Your task to perform on an android device: set the timer Image 0: 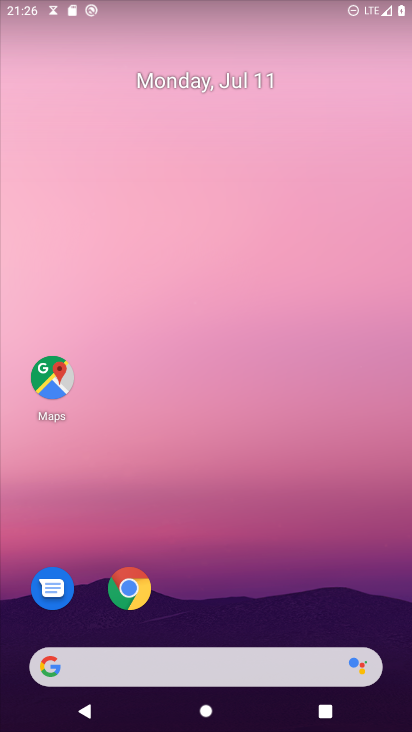
Step 0: press home button
Your task to perform on an android device: set the timer Image 1: 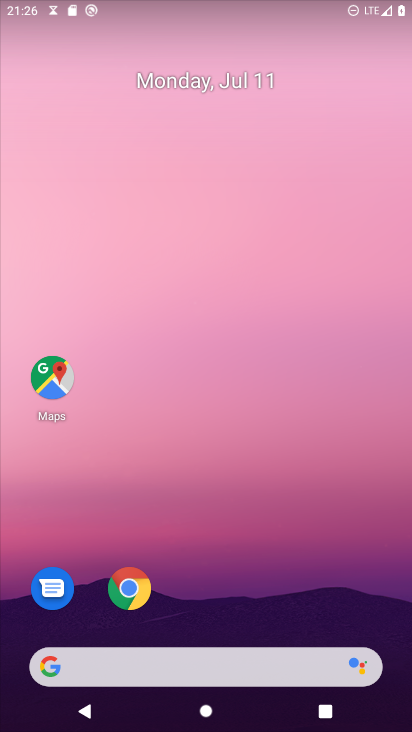
Step 1: drag from (238, 627) to (197, 29)
Your task to perform on an android device: set the timer Image 2: 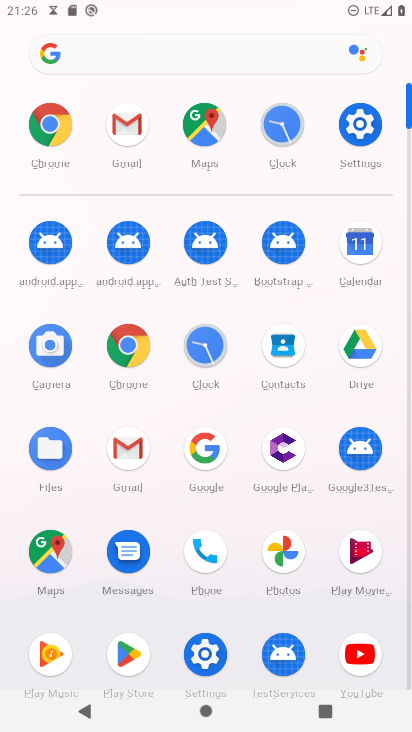
Step 2: click (282, 135)
Your task to perform on an android device: set the timer Image 3: 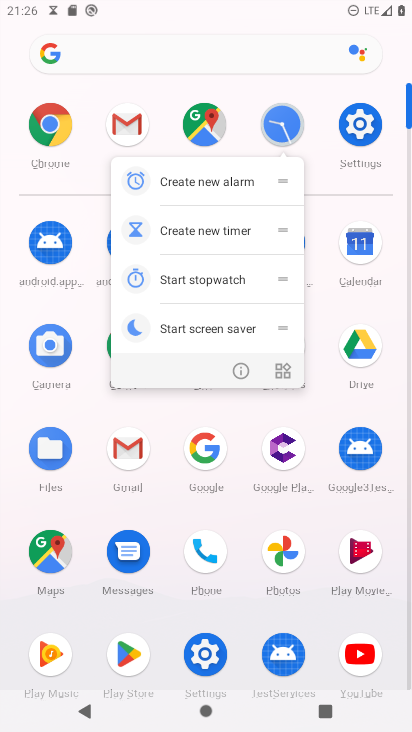
Step 3: click (282, 135)
Your task to perform on an android device: set the timer Image 4: 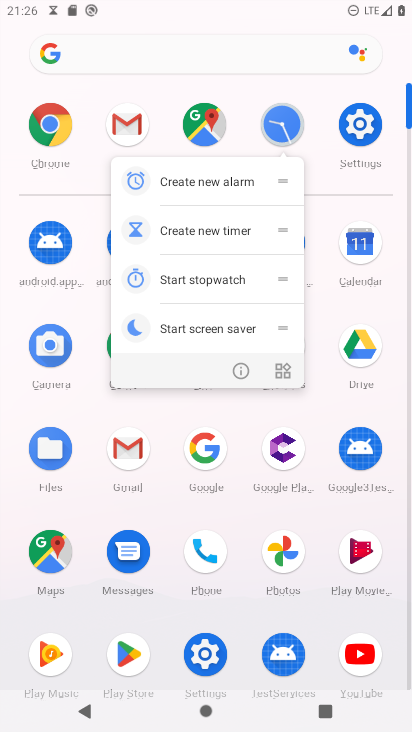
Step 4: click (290, 122)
Your task to perform on an android device: set the timer Image 5: 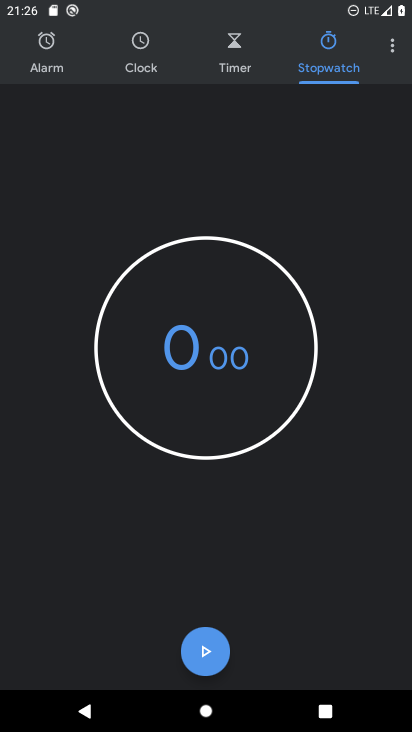
Step 5: click (243, 43)
Your task to perform on an android device: set the timer Image 6: 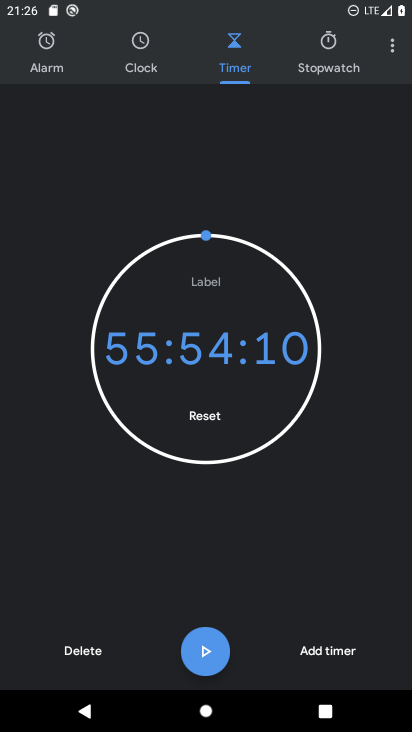
Step 6: click (200, 659)
Your task to perform on an android device: set the timer Image 7: 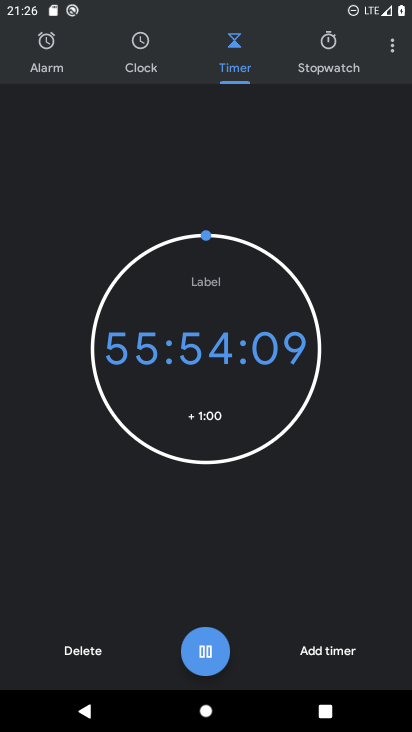
Step 7: click (200, 659)
Your task to perform on an android device: set the timer Image 8: 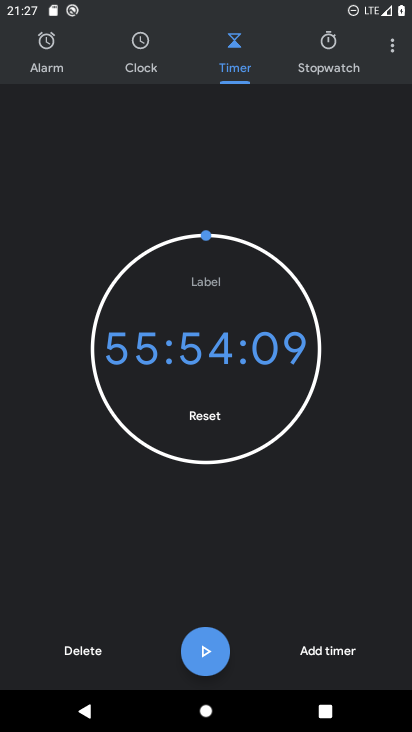
Step 8: click (200, 659)
Your task to perform on an android device: set the timer Image 9: 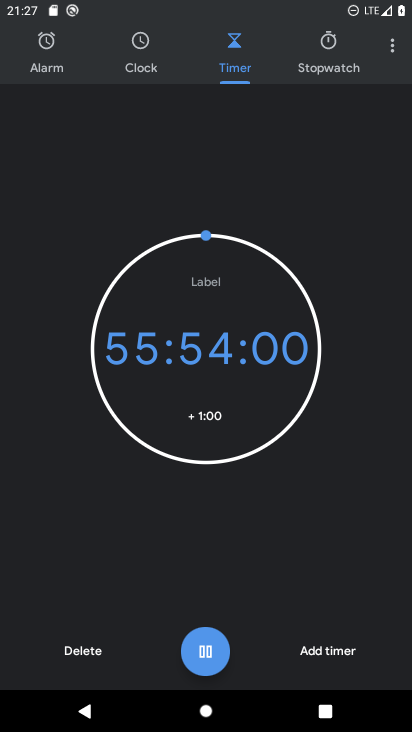
Step 9: task complete